Your task to perform on an android device: change notification settings in the gmail app Image 0: 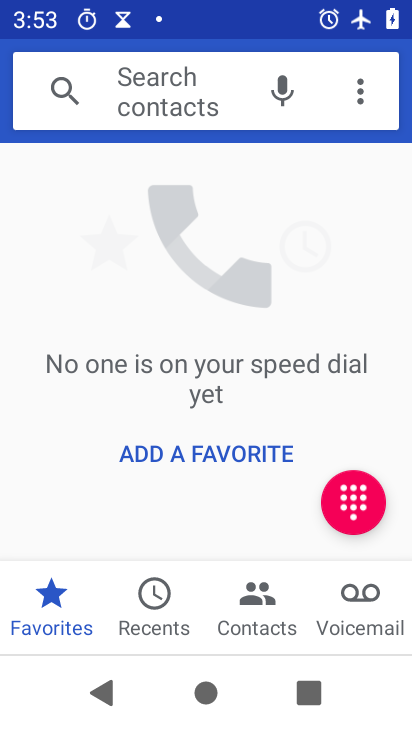
Step 0: press home button
Your task to perform on an android device: change notification settings in the gmail app Image 1: 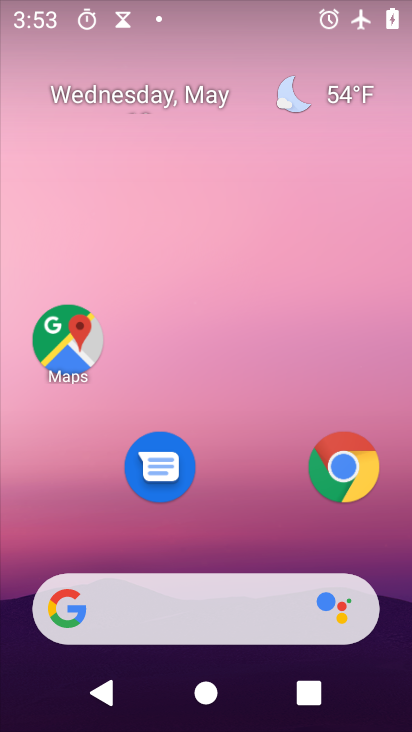
Step 1: drag from (289, 504) to (206, 185)
Your task to perform on an android device: change notification settings in the gmail app Image 2: 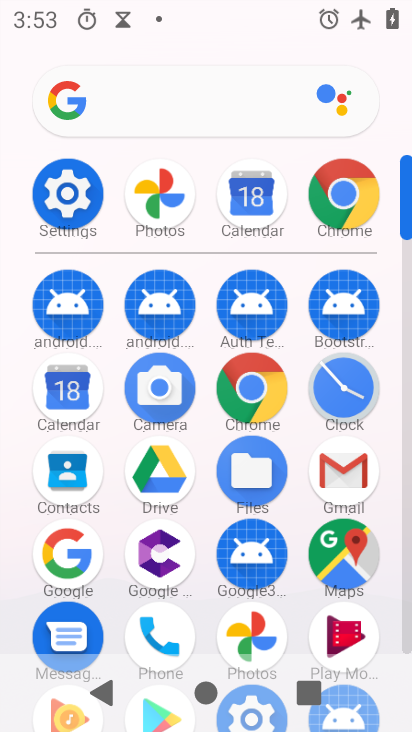
Step 2: click (329, 464)
Your task to perform on an android device: change notification settings in the gmail app Image 3: 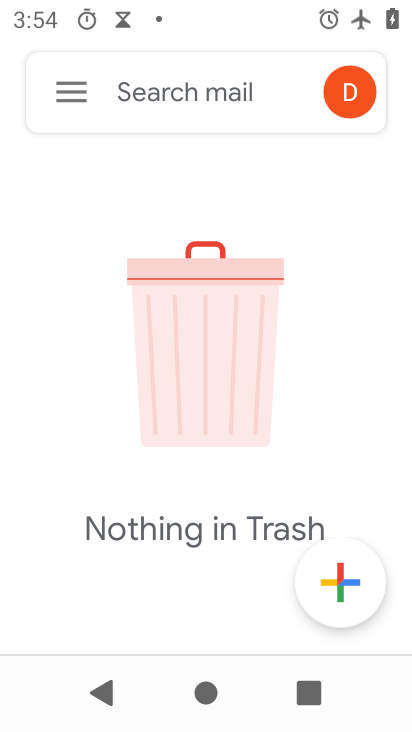
Step 3: click (78, 101)
Your task to perform on an android device: change notification settings in the gmail app Image 4: 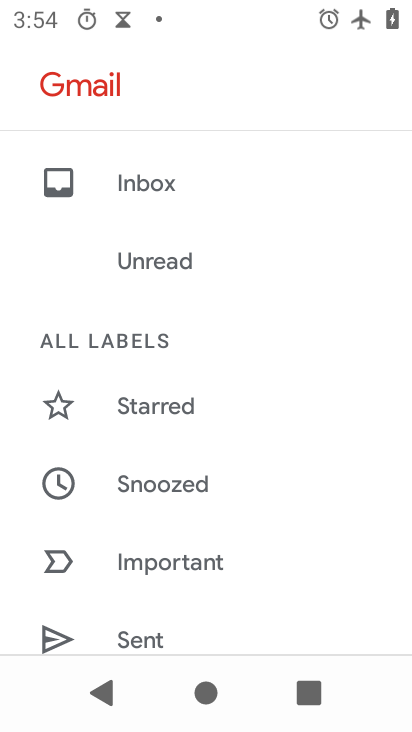
Step 4: drag from (218, 592) to (172, 261)
Your task to perform on an android device: change notification settings in the gmail app Image 5: 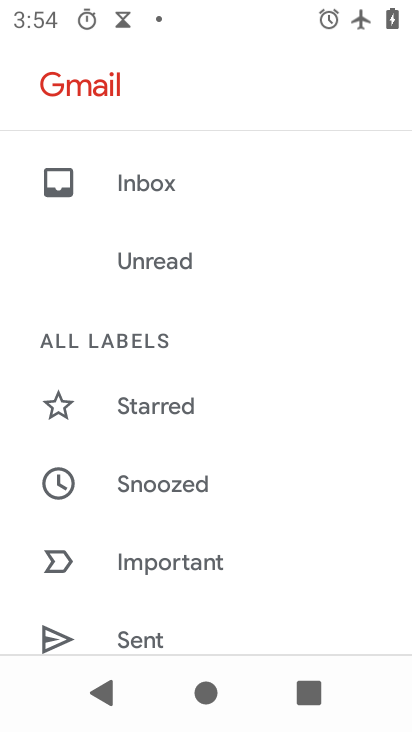
Step 5: drag from (297, 611) to (235, 214)
Your task to perform on an android device: change notification settings in the gmail app Image 6: 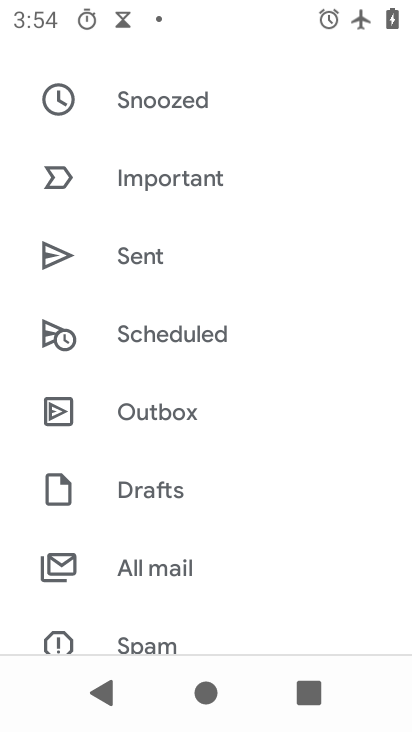
Step 6: drag from (225, 594) to (151, 245)
Your task to perform on an android device: change notification settings in the gmail app Image 7: 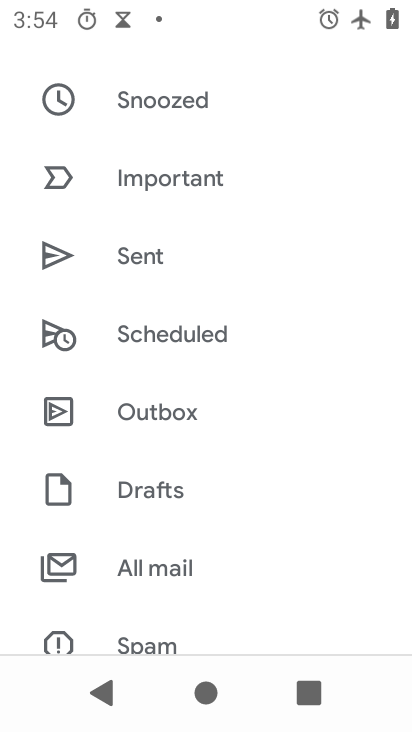
Step 7: drag from (217, 619) to (185, 214)
Your task to perform on an android device: change notification settings in the gmail app Image 8: 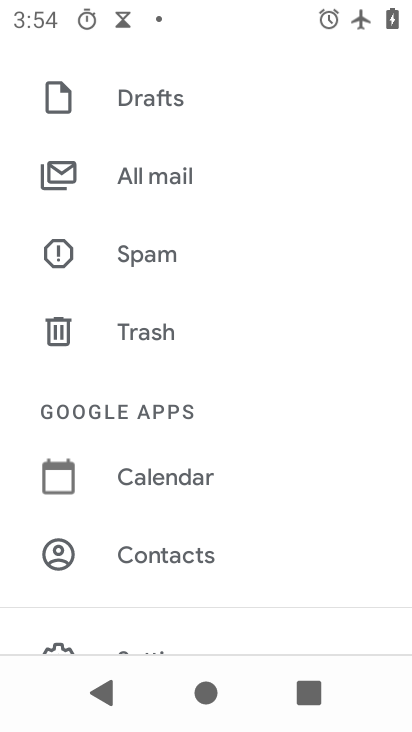
Step 8: drag from (207, 634) to (176, 177)
Your task to perform on an android device: change notification settings in the gmail app Image 9: 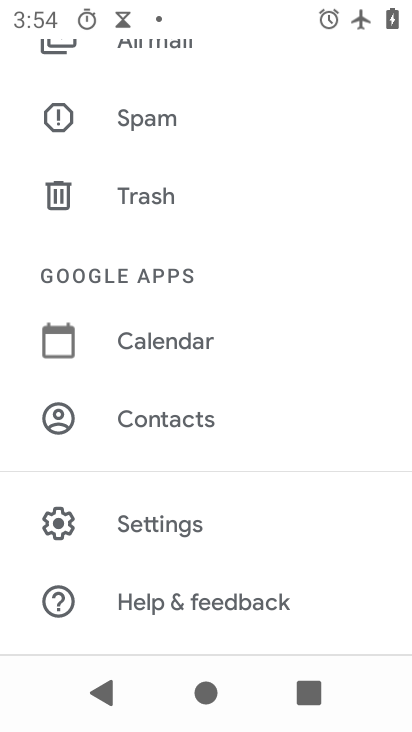
Step 9: click (189, 533)
Your task to perform on an android device: change notification settings in the gmail app Image 10: 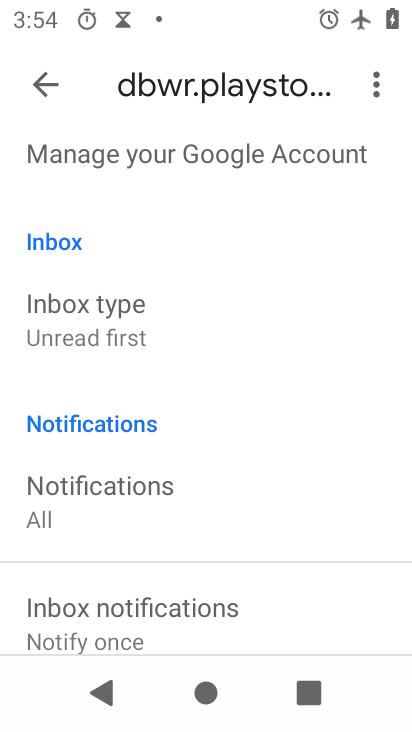
Step 10: drag from (239, 610) to (214, 200)
Your task to perform on an android device: change notification settings in the gmail app Image 11: 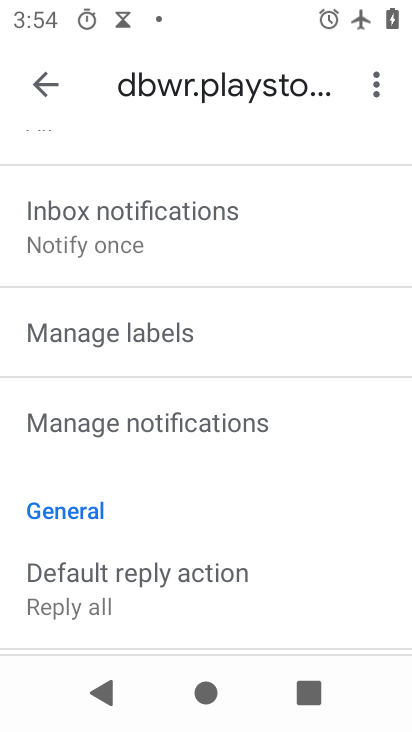
Step 11: click (209, 443)
Your task to perform on an android device: change notification settings in the gmail app Image 12: 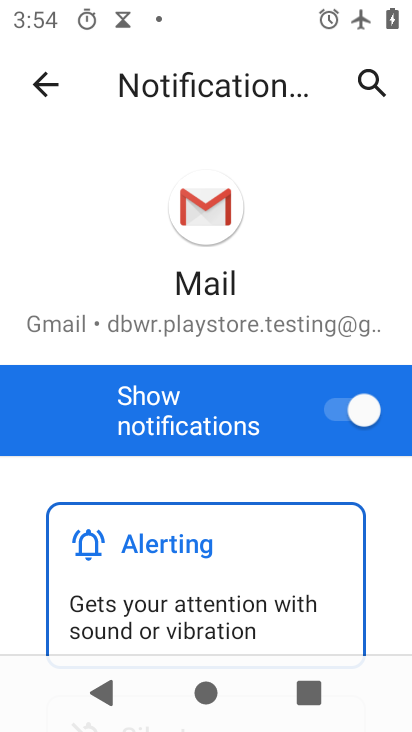
Step 12: drag from (292, 575) to (254, 220)
Your task to perform on an android device: change notification settings in the gmail app Image 13: 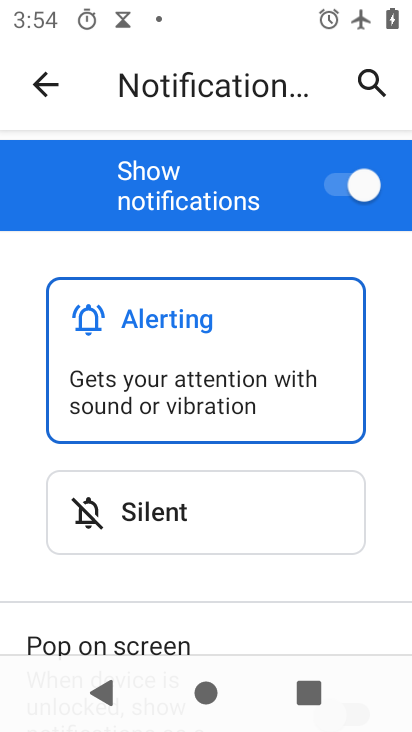
Step 13: click (297, 487)
Your task to perform on an android device: change notification settings in the gmail app Image 14: 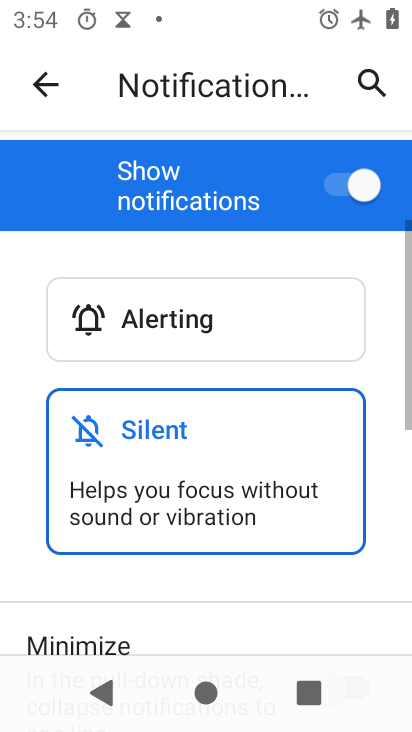
Step 14: drag from (381, 508) to (354, 304)
Your task to perform on an android device: change notification settings in the gmail app Image 15: 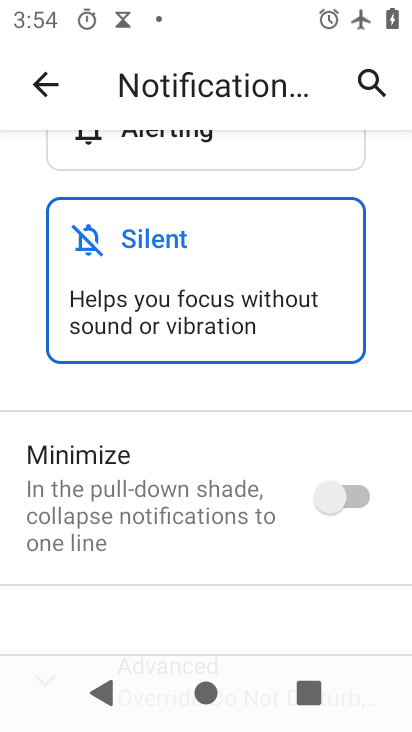
Step 15: click (349, 498)
Your task to perform on an android device: change notification settings in the gmail app Image 16: 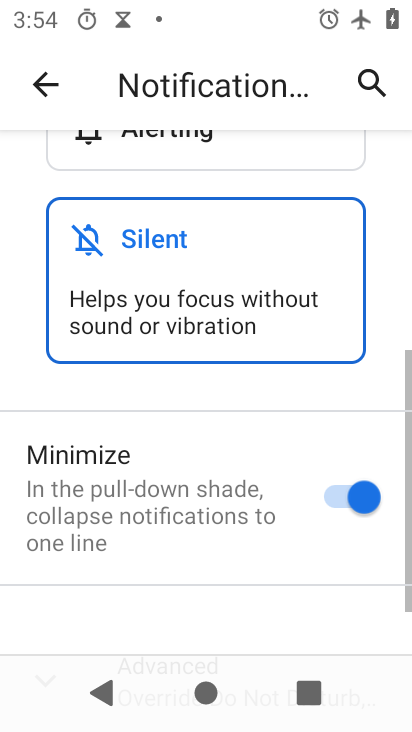
Step 16: task complete